Your task to perform on an android device: see tabs open on other devices in the chrome app Image 0: 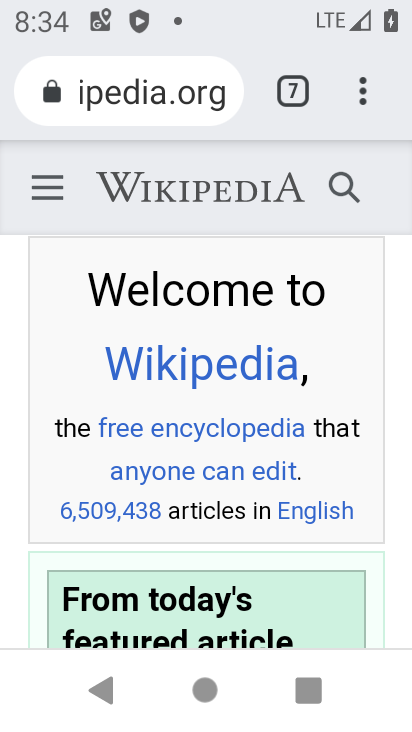
Step 0: press home button
Your task to perform on an android device: see tabs open on other devices in the chrome app Image 1: 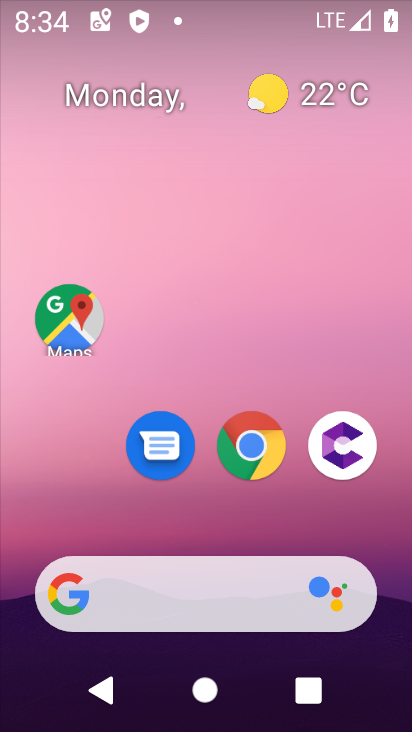
Step 1: click (240, 470)
Your task to perform on an android device: see tabs open on other devices in the chrome app Image 2: 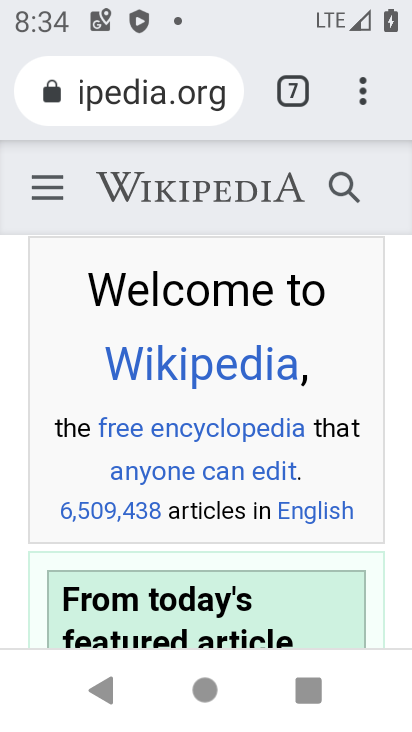
Step 2: click (367, 90)
Your task to perform on an android device: see tabs open on other devices in the chrome app Image 3: 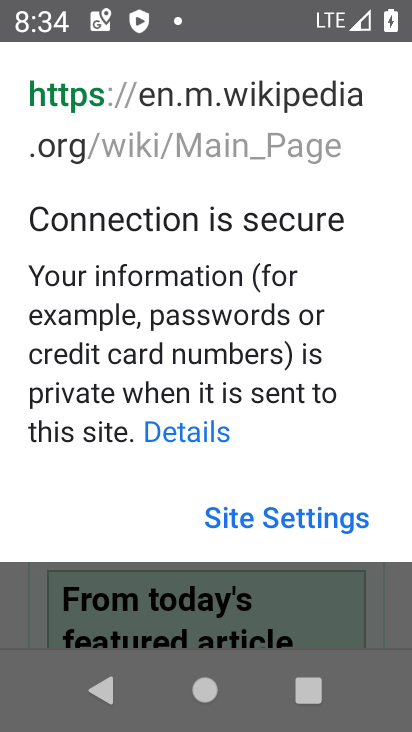
Step 3: drag from (367, 90) to (363, 601)
Your task to perform on an android device: see tabs open on other devices in the chrome app Image 4: 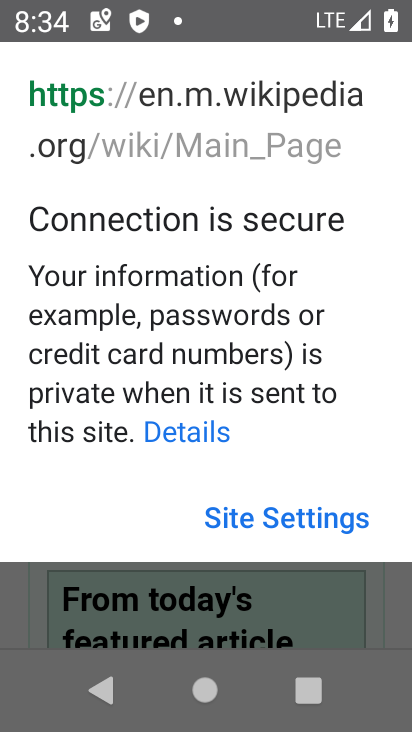
Step 4: click (19, 588)
Your task to perform on an android device: see tabs open on other devices in the chrome app Image 5: 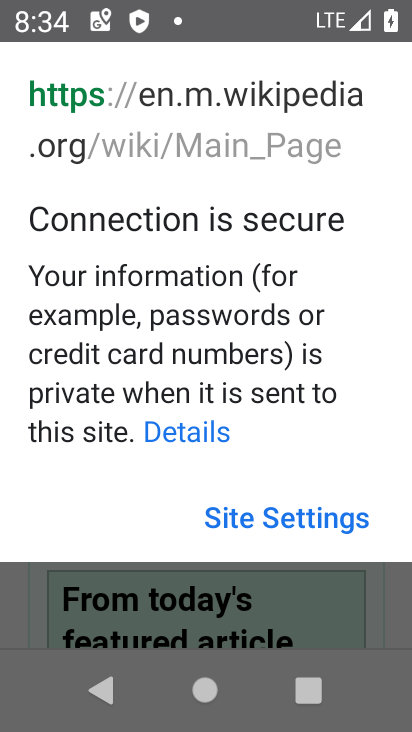
Step 5: click (25, 569)
Your task to perform on an android device: see tabs open on other devices in the chrome app Image 6: 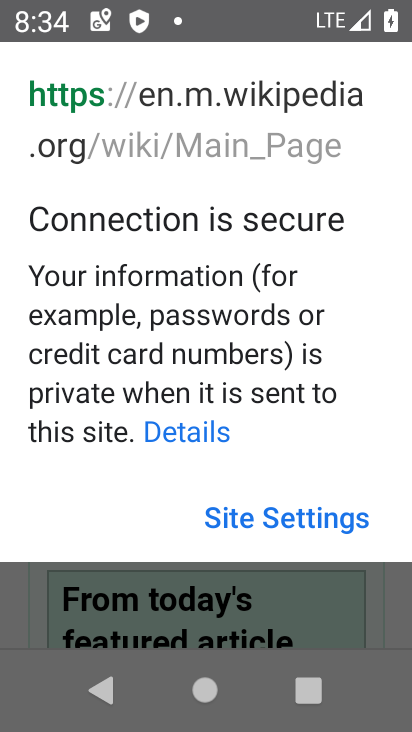
Step 6: click (25, 569)
Your task to perform on an android device: see tabs open on other devices in the chrome app Image 7: 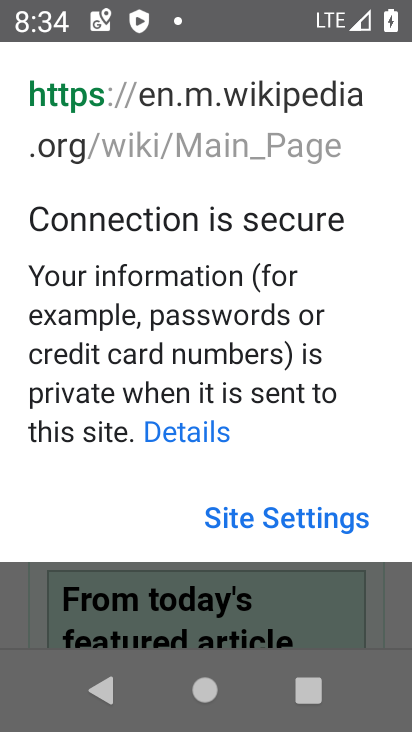
Step 7: click (383, 583)
Your task to perform on an android device: see tabs open on other devices in the chrome app Image 8: 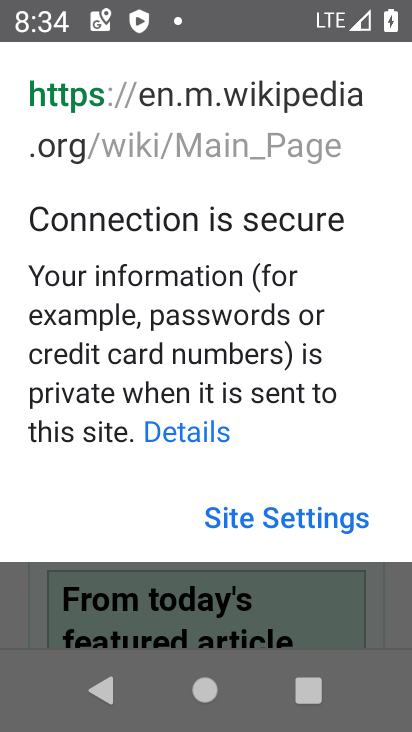
Step 8: click (397, 595)
Your task to perform on an android device: see tabs open on other devices in the chrome app Image 9: 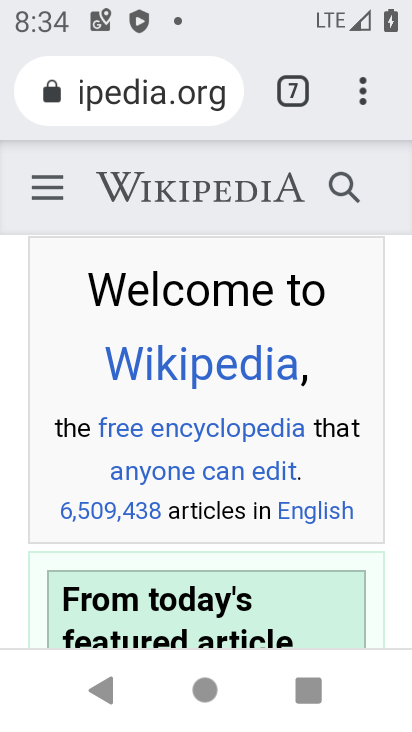
Step 9: drag from (357, 79) to (153, 444)
Your task to perform on an android device: see tabs open on other devices in the chrome app Image 10: 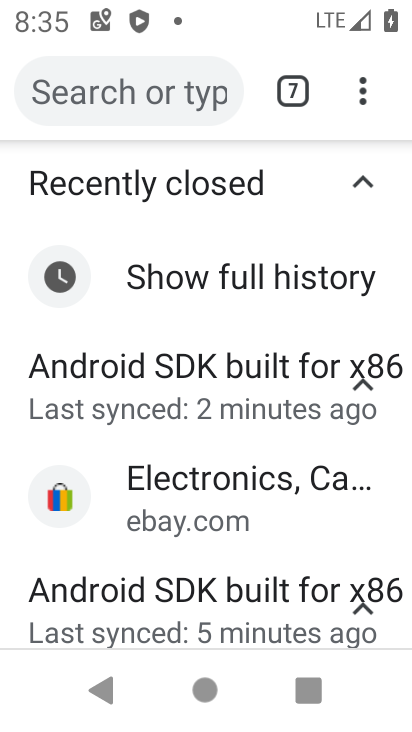
Step 10: drag from (36, 552) to (49, 245)
Your task to perform on an android device: see tabs open on other devices in the chrome app Image 11: 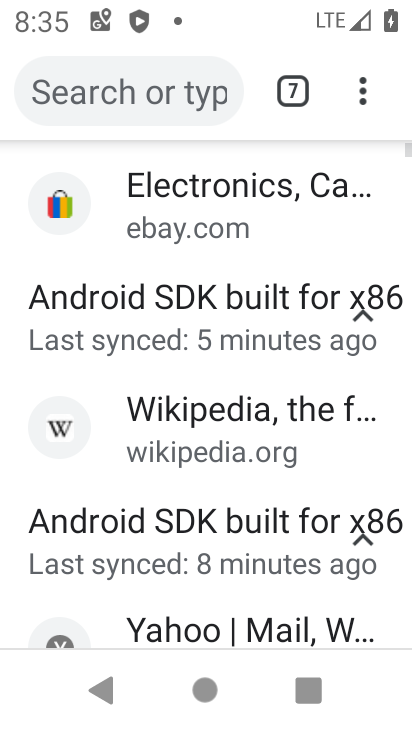
Step 11: drag from (59, 576) to (123, 726)
Your task to perform on an android device: see tabs open on other devices in the chrome app Image 12: 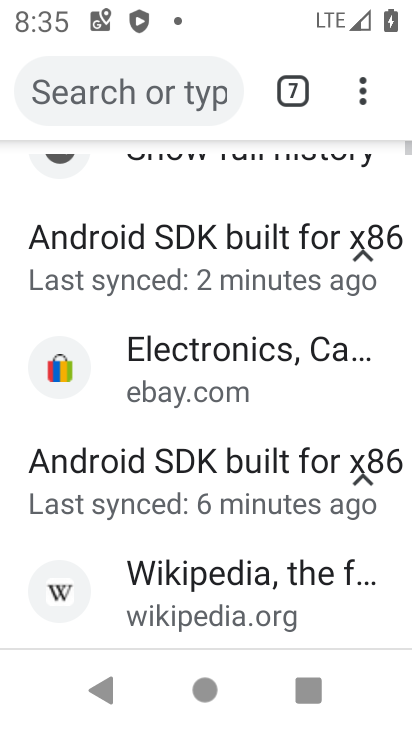
Step 12: drag from (33, 193) to (116, 710)
Your task to perform on an android device: see tabs open on other devices in the chrome app Image 13: 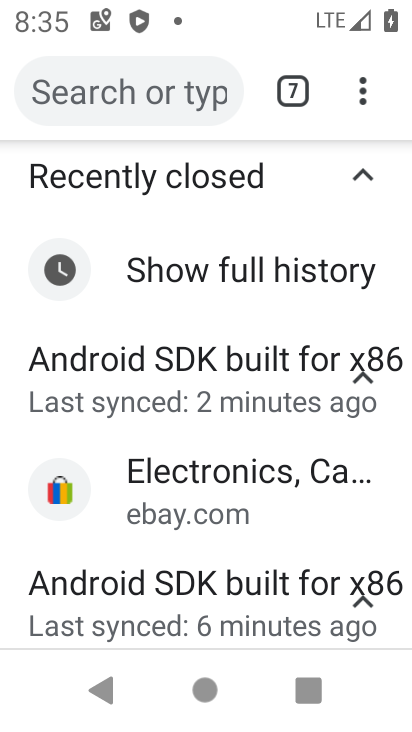
Step 13: click (371, 191)
Your task to perform on an android device: see tabs open on other devices in the chrome app Image 14: 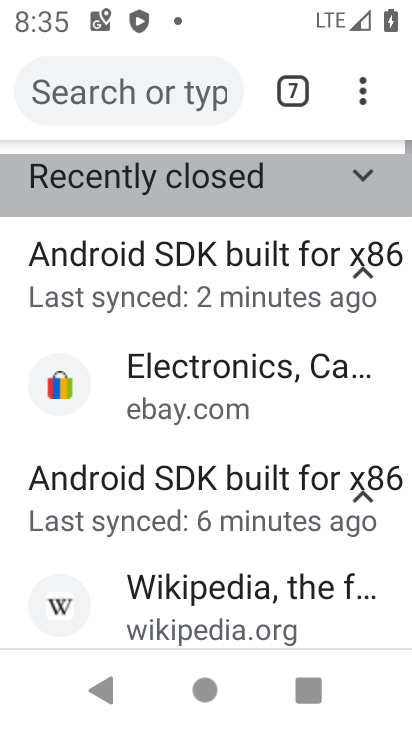
Step 14: click (356, 163)
Your task to perform on an android device: see tabs open on other devices in the chrome app Image 15: 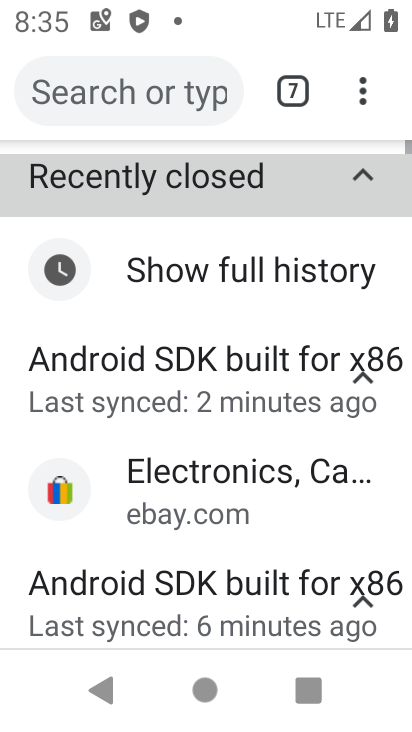
Step 15: click (356, 163)
Your task to perform on an android device: see tabs open on other devices in the chrome app Image 16: 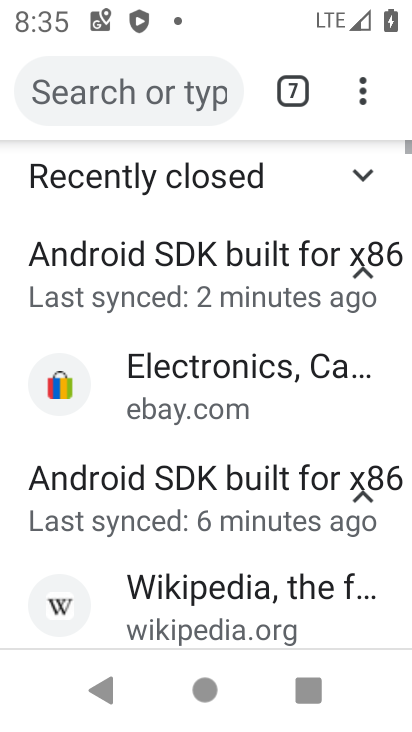
Step 16: task complete